Your task to perform on an android device: Open settings Image 0: 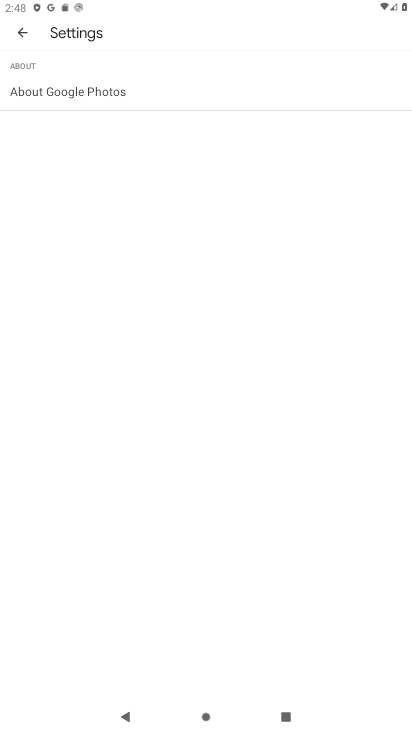
Step 0: drag from (210, 599) to (133, 142)
Your task to perform on an android device: Open settings Image 1: 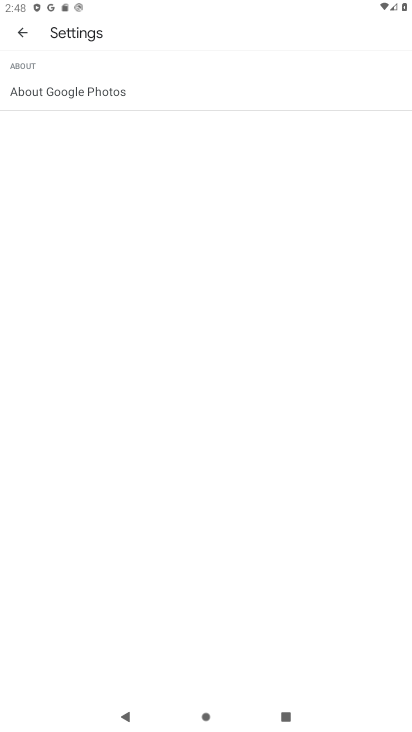
Step 1: press home button
Your task to perform on an android device: Open settings Image 2: 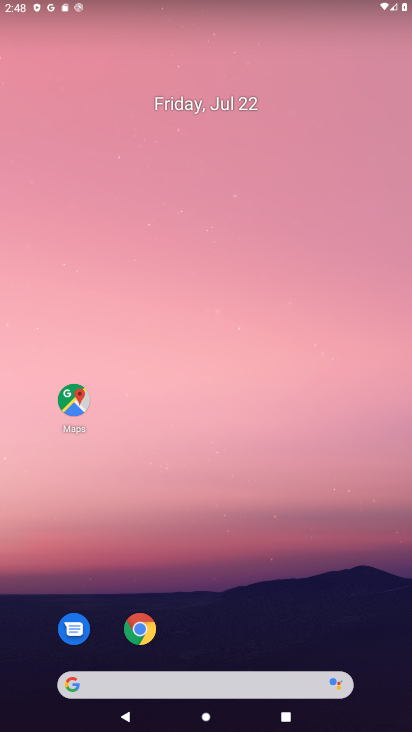
Step 2: drag from (231, 530) to (192, 118)
Your task to perform on an android device: Open settings Image 3: 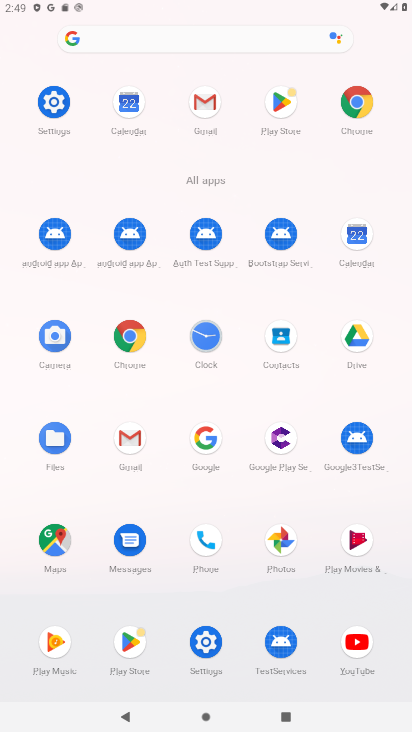
Step 3: click (49, 102)
Your task to perform on an android device: Open settings Image 4: 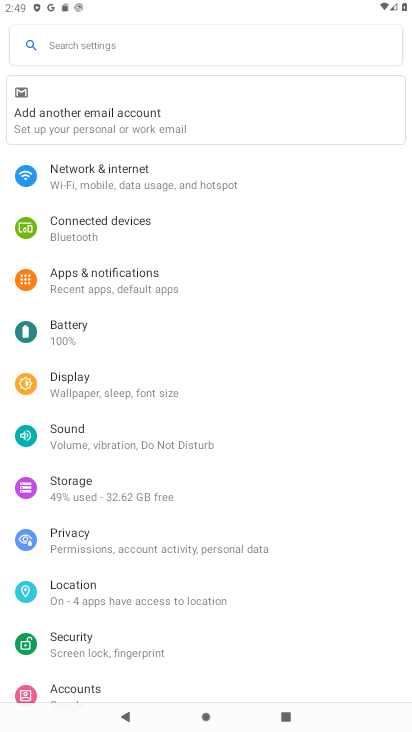
Step 4: task complete